Your task to perform on an android device: add a contact Image 0: 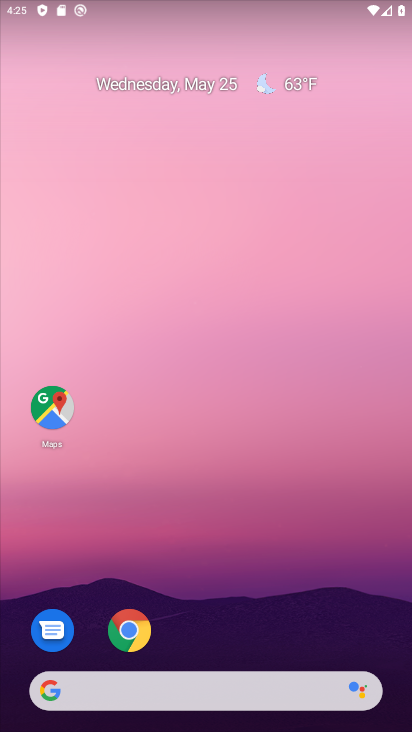
Step 0: drag from (215, 376) to (198, 135)
Your task to perform on an android device: add a contact Image 1: 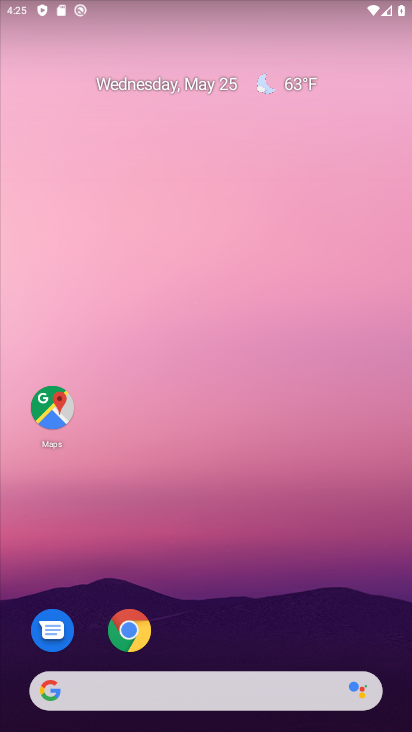
Step 1: drag from (235, 377) to (260, 57)
Your task to perform on an android device: add a contact Image 2: 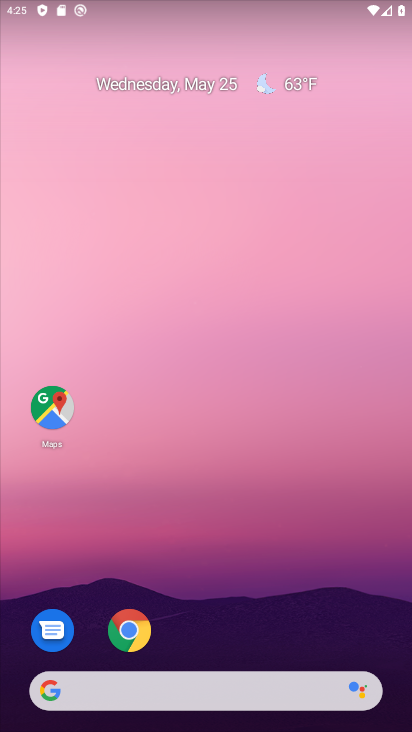
Step 2: drag from (212, 594) to (266, 66)
Your task to perform on an android device: add a contact Image 3: 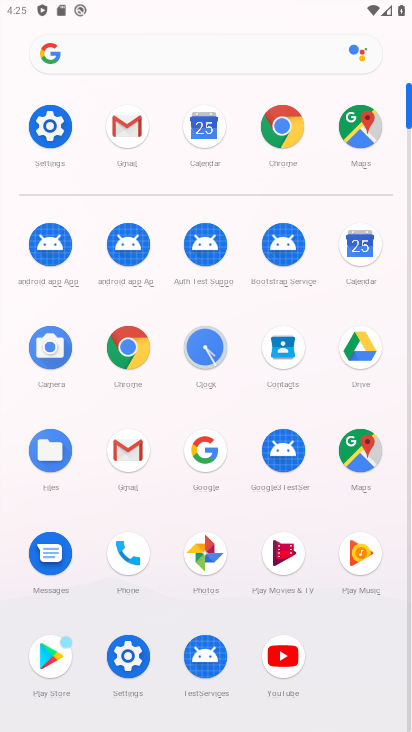
Step 3: click (275, 345)
Your task to perform on an android device: add a contact Image 4: 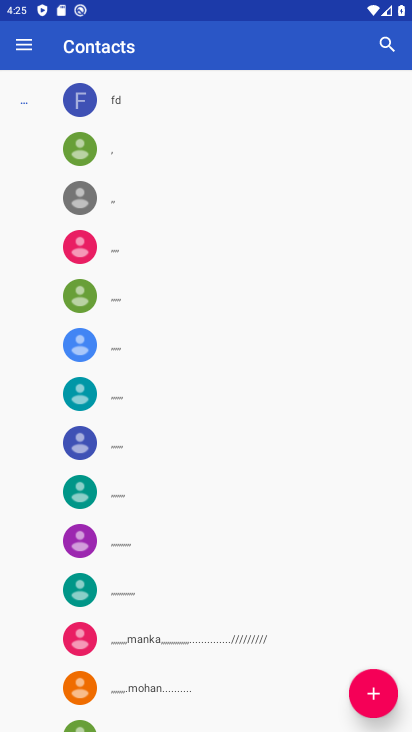
Step 4: click (371, 698)
Your task to perform on an android device: add a contact Image 5: 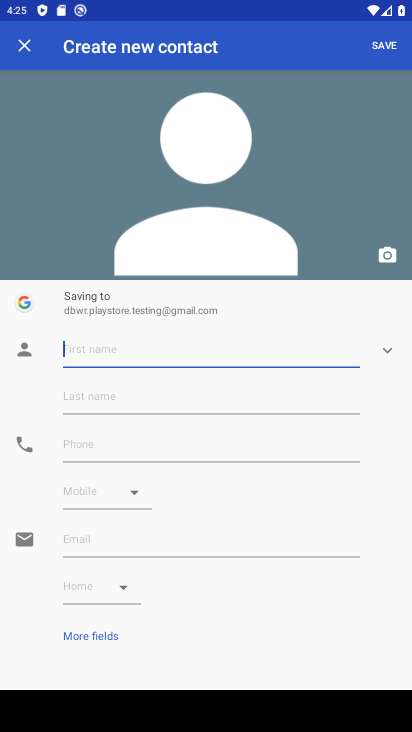
Step 5: click (90, 351)
Your task to perform on an android device: add a contact Image 6: 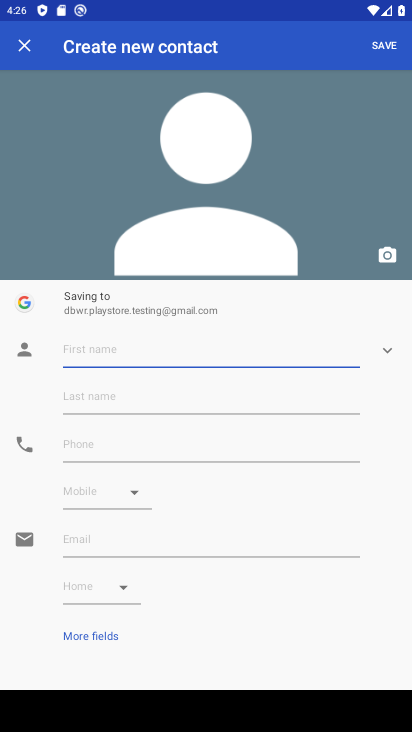
Step 6: type "ggjb"
Your task to perform on an android device: add a contact Image 7: 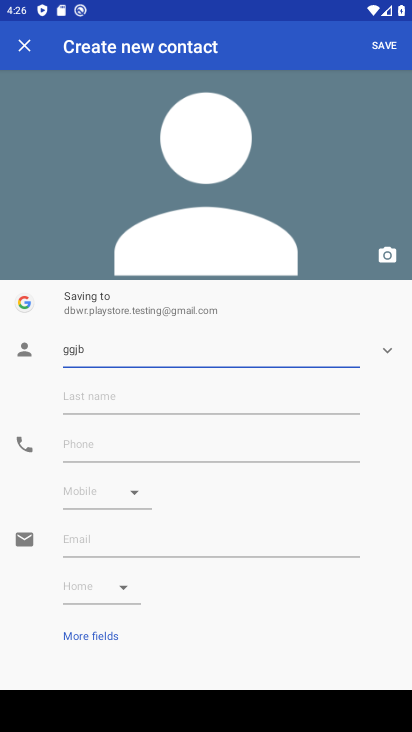
Step 7: click (103, 445)
Your task to perform on an android device: add a contact Image 8: 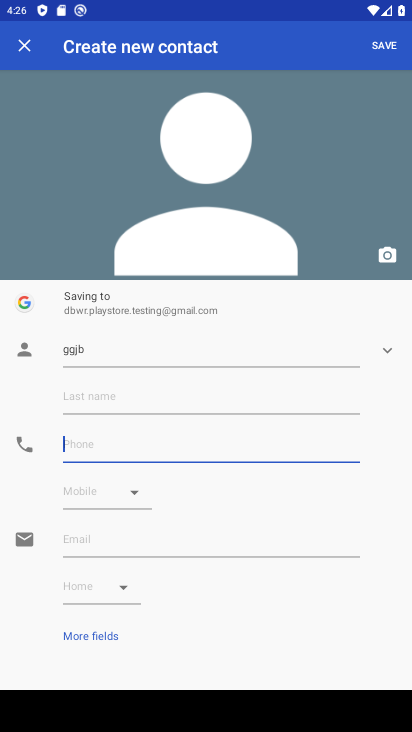
Step 8: type "97979"
Your task to perform on an android device: add a contact Image 9: 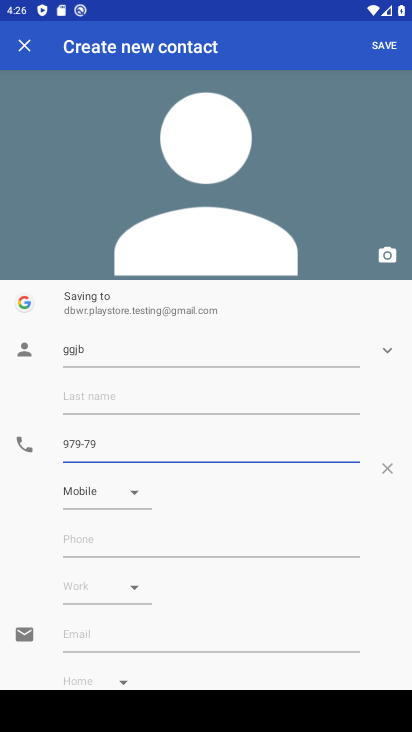
Step 9: click (381, 28)
Your task to perform on an android device: add a contact Image 10: 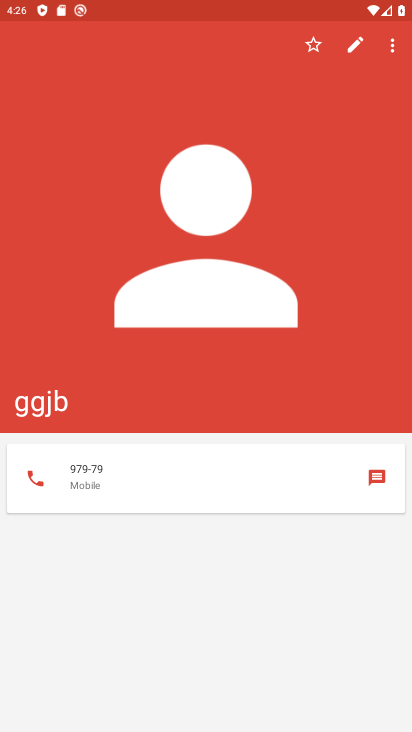
Step 10: task complete